Your task to perform on an android device: turn on improve location accuracy Image 0: 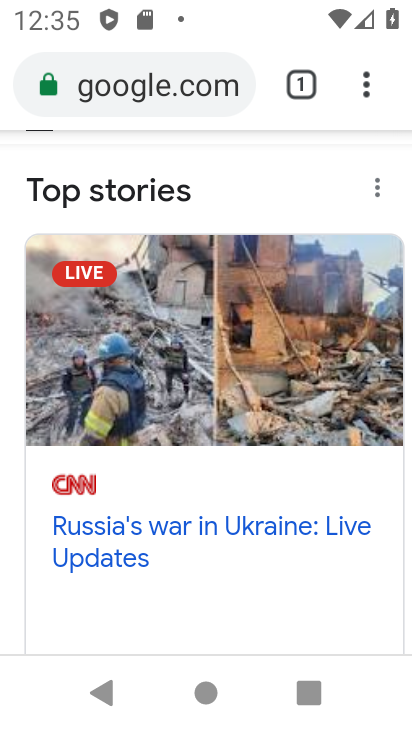
Step 0: press home button
Your task to perform on an android device: turn on improve location accuracy Image 1: 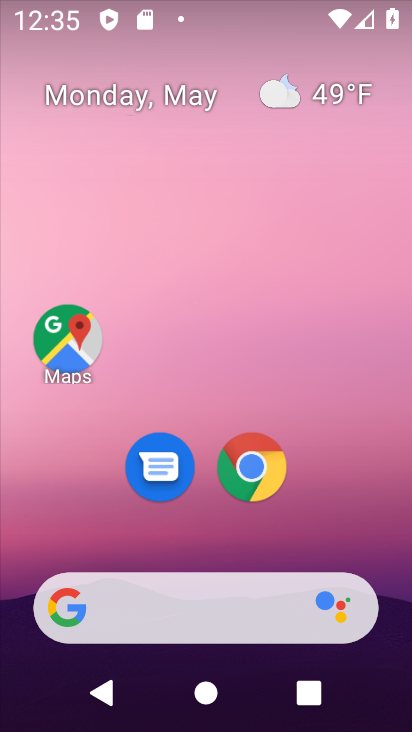
Step 1: drag from (361, 472) to (322, 127)
Your task to perform on an android device: turn on improve location accuracy Image 2: 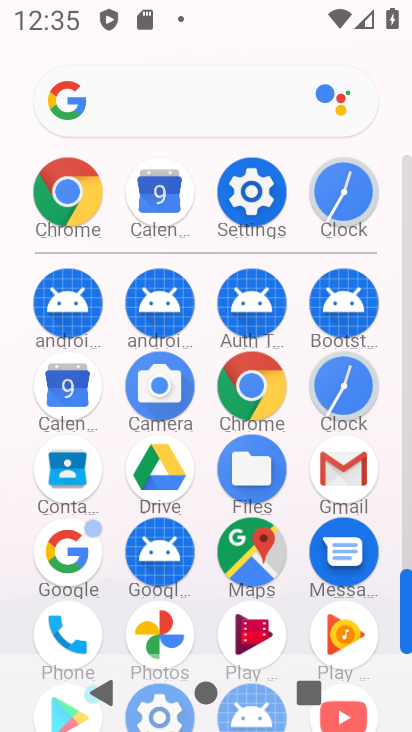
Step 2: click (234, 213)
Your task to perform on an android device: turn on improve location accuracy Image 3: 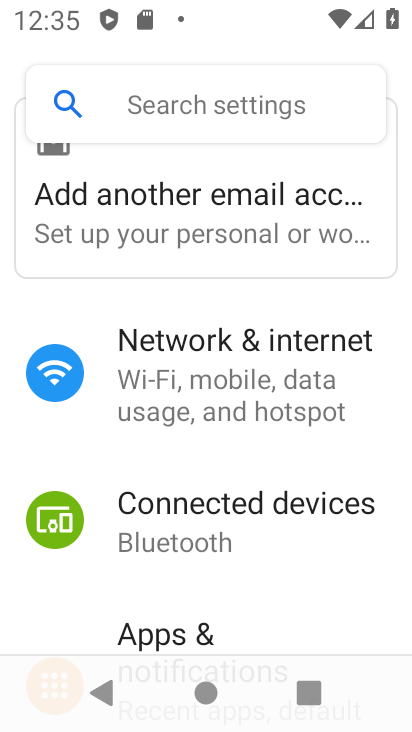
Step 3: drag from (253, 597) to (251, 245)
Your task to perform on an android device: turn on improve location accuracy Image 4: 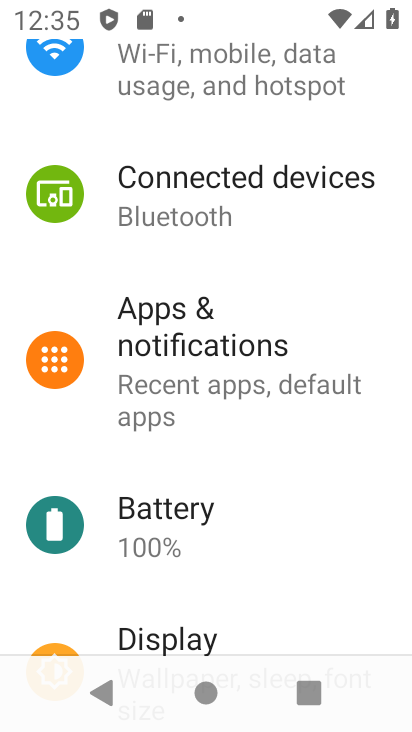
Step 4: drag from (249, 574) to (272, 256)
Your task to perform on an android device: turn on improve location accuracy Image 5: 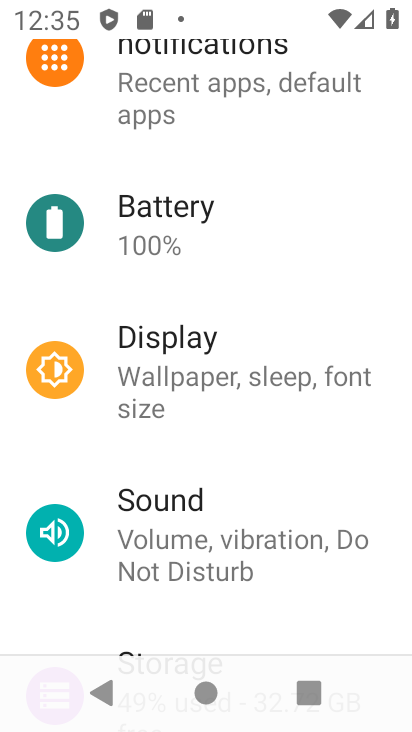
Step 5: drag from (256, 581) to (265, 288)
Your task to perform on an android device: turn on improve location accuracy Image 6: 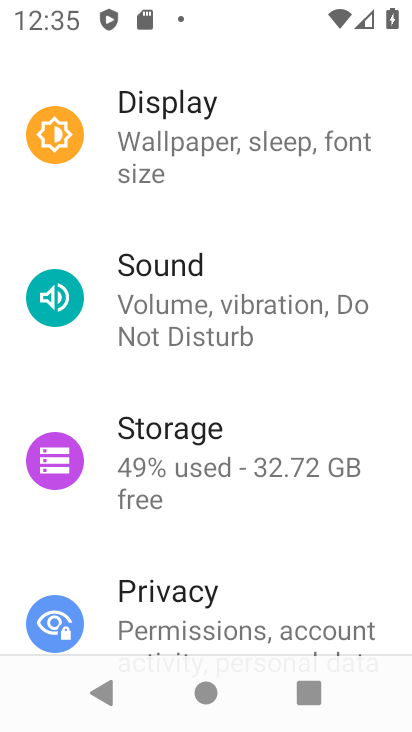
Step 6: drag from (280, 558) to (286, 207)
Your task to perform on an android device: turn on improve location accuracy Image 7: 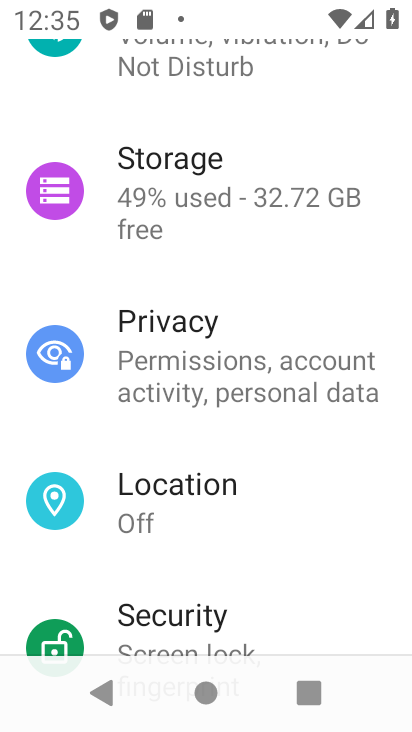
Step 7: drag from (298, 563) to (241, 252)
Your task to perform on an android device: turn on improve location accuracy Image 8: 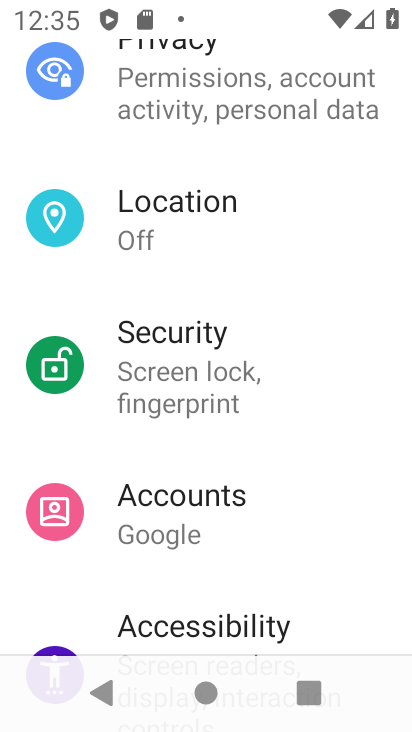
Step 8: drag from (305, 532) to (303, 209)
Your task to perform on an android device: turn on improve location accuracy Image 9: 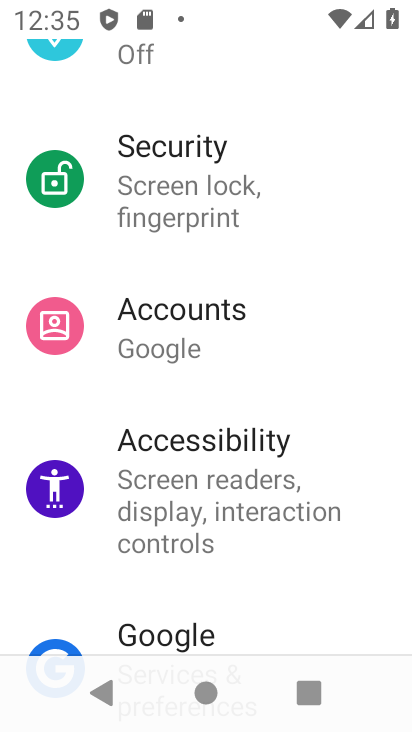
Step 9: drag from (349, 514) to (339, 187)
Your task to perform on an android device: turn on improve location accuracy Image 10: 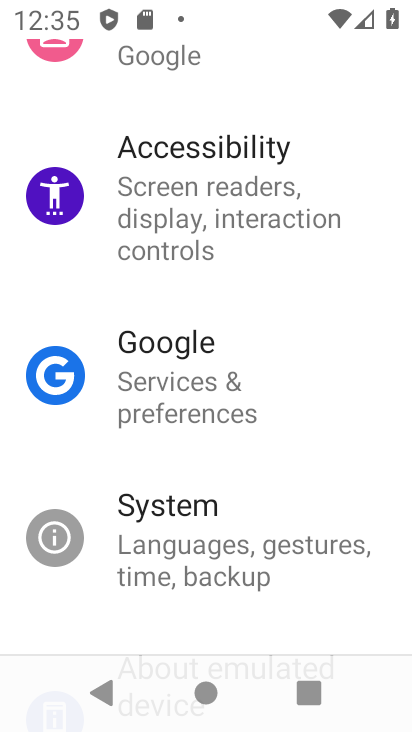
Step 10: drag from (338, 617) to (334, 284)
Your task to perform on an android device: turn on improve location accuracy Image 11: 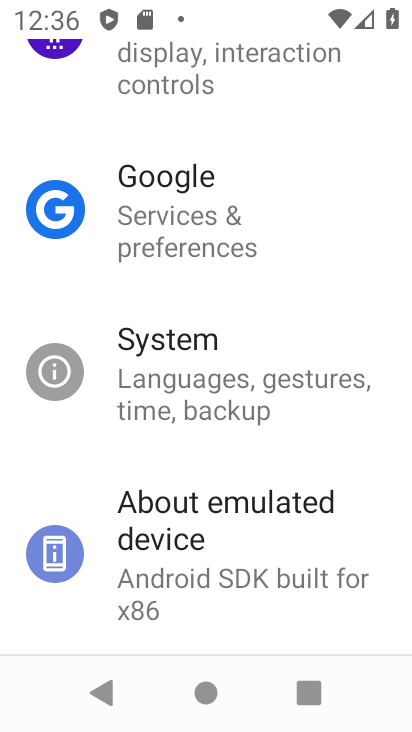
Step 11: drag from (330, 259) to (346, 546)
Your task to perform on an android device: turn on improve location accuracy Image 12: 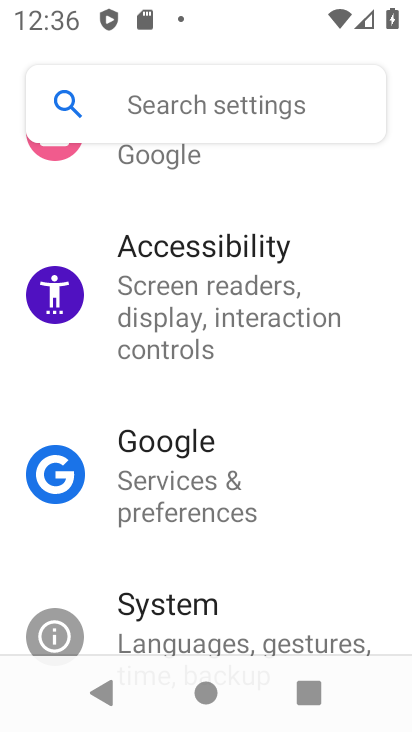
Step 12: drag from (235, 251) to (317, 566)
Your task to perform on an android device: turn on improve location accuracy Image 13: 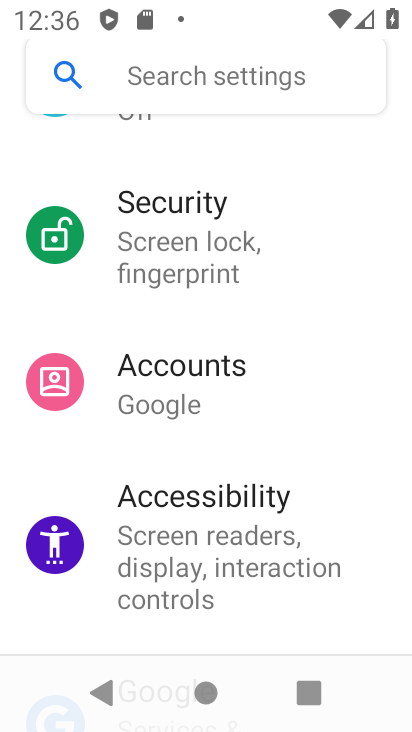
Step 13: drag from (185, 275) to (249, 541)
Your task to perform on an android device: turn on improve location accuracy Image 14: 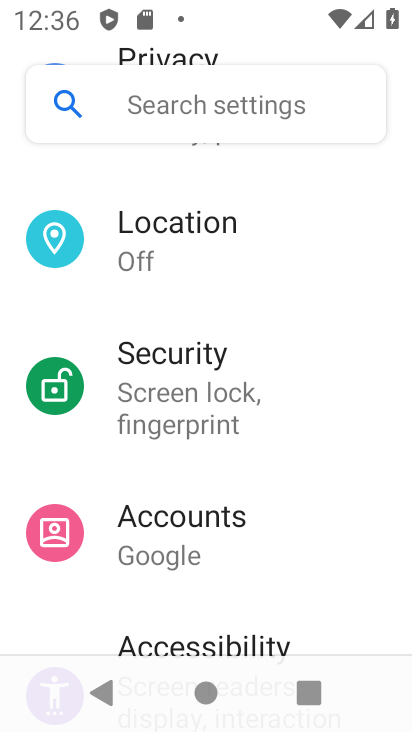
Step 14: click (249, 217)
Your task to perform on an android device: turn on improve location accuracy Image 15: 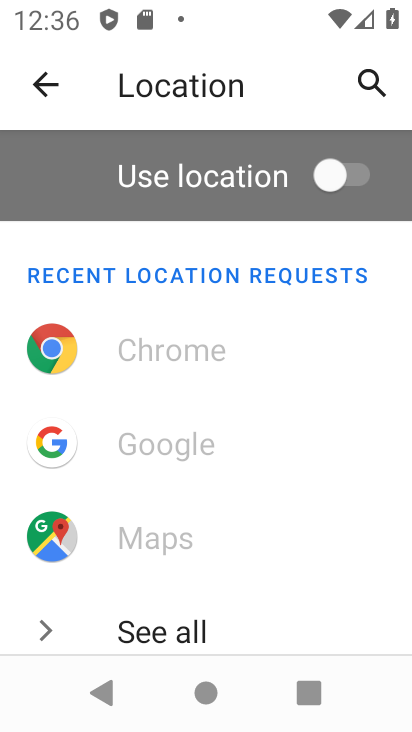
Step 15: drag from (278, 617) to (273, 303)
Your task to perform on an android device: turn on improve location accuracy Image 16: 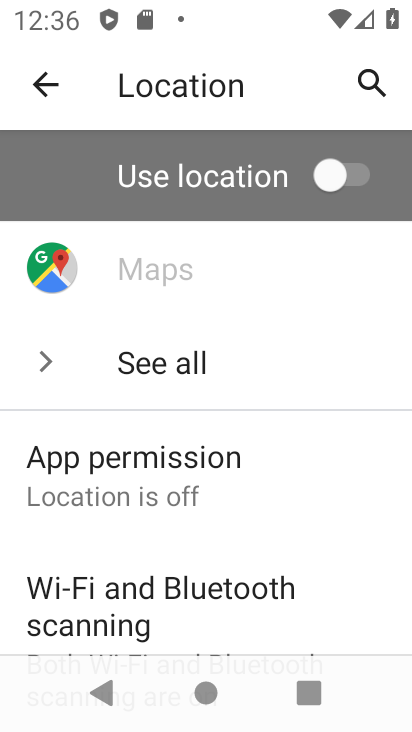
Step 16: drag from (322, 555) to (322, 340)
Your task to perform on an android device: turn on improve location accuracy Image 17: 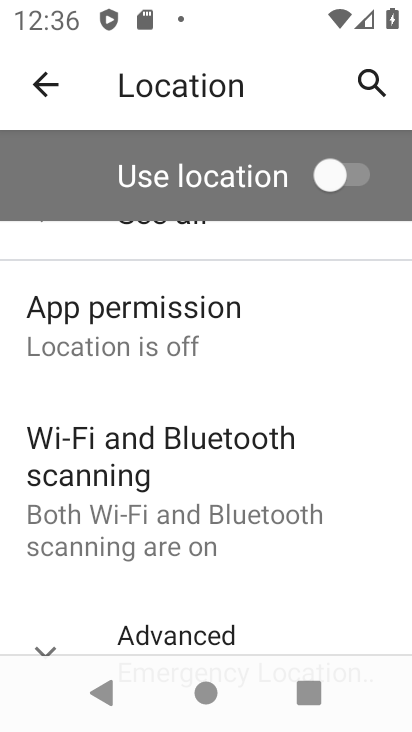
Step 17: drag from (330, 585) to (316, 310)
Your task to perform on an android device: turn on improve location accuracy Image 18: 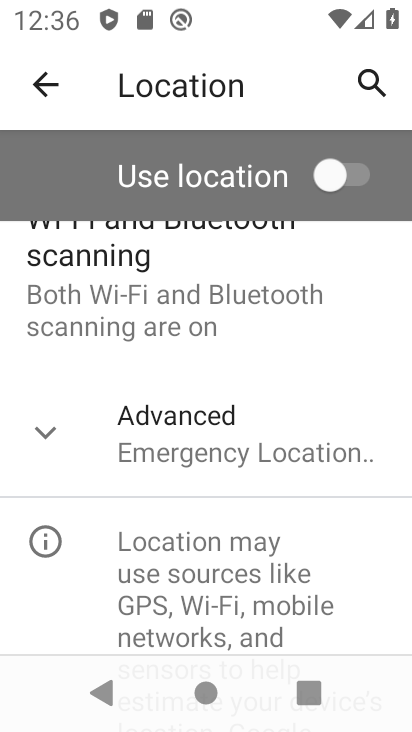
Step 18: click (265, 451)
Your task to perform on an android device: turn on improve location accuracy Image 19: 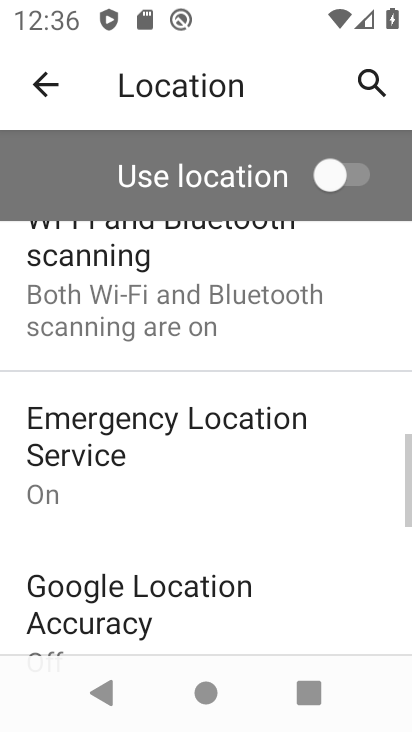
Step 19: click (141, 624)
Your task to perform on an android device: turn on improve location accuracy Image 20: 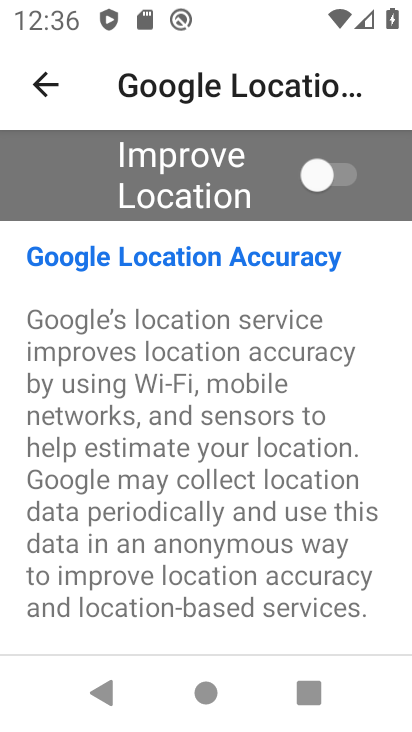
Step 20: click (330, 179)
Your task to perform on an android device: turn on improve location accuracy Image 21: 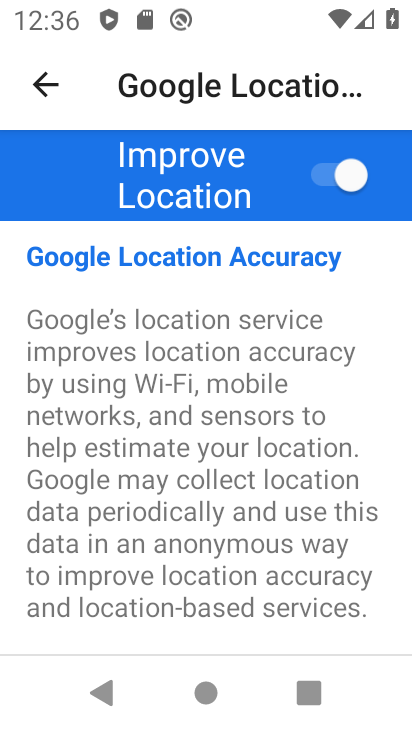
Step 21: task complete